Your task to perform on an android device: Open the web browser Image 0: 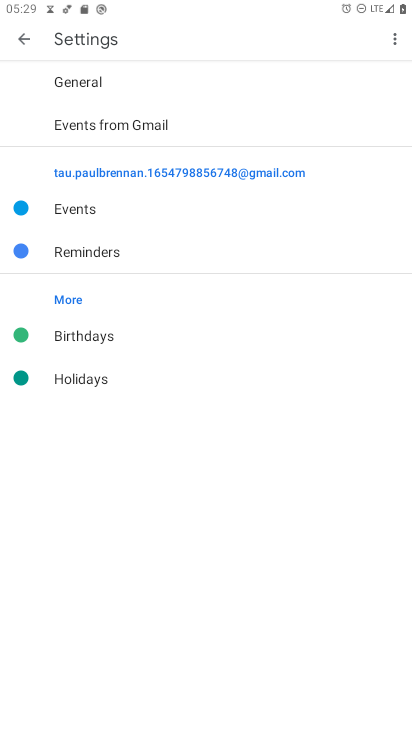
Step 0: press home button
Your task to perform on an android device: Open the web browser Image 1: 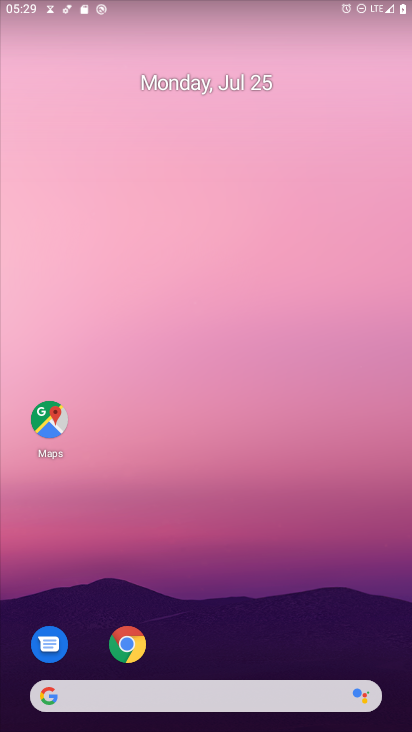
Step 1: drag from (293, 645) to (339, 142)
Your task to perform on an android device: Open the web browser Image 2: 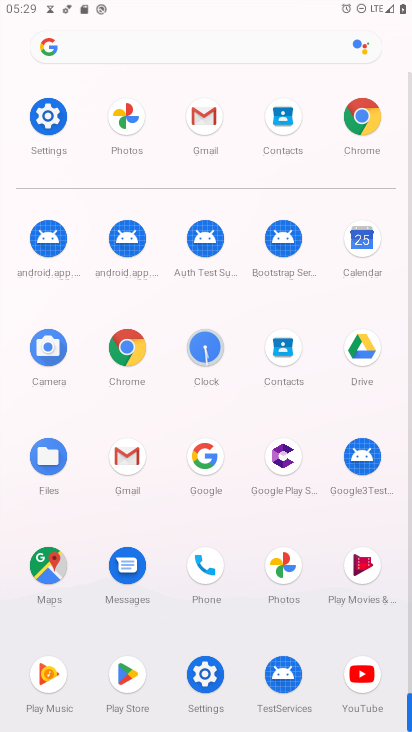
Step 2: click (117, 341)
Your task to perform on an android device: Open the web browser Image 3: 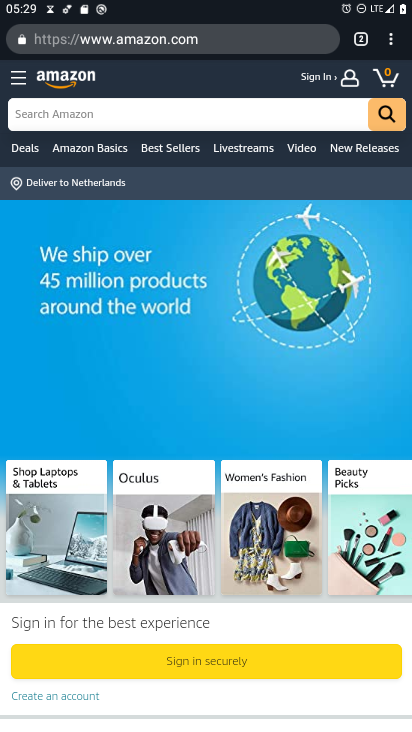
Step 3: click (363, 38)
Your task to perform on an android device: Open the web browser Image 4: 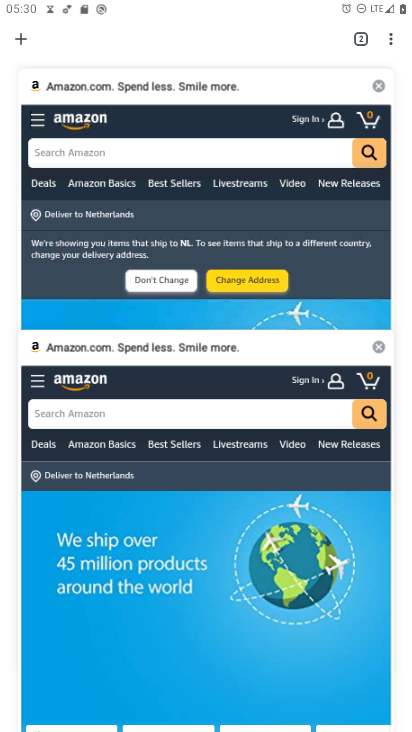
Step 4: click (15, 34)
Your task to perform on an android device: Open the web browser Image 5: 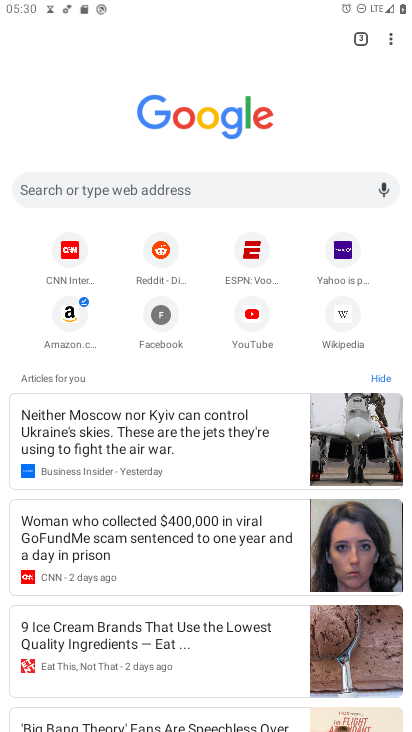
Step 5: task complete